Your task to perform on an android device: Open CNN.com Image 0: 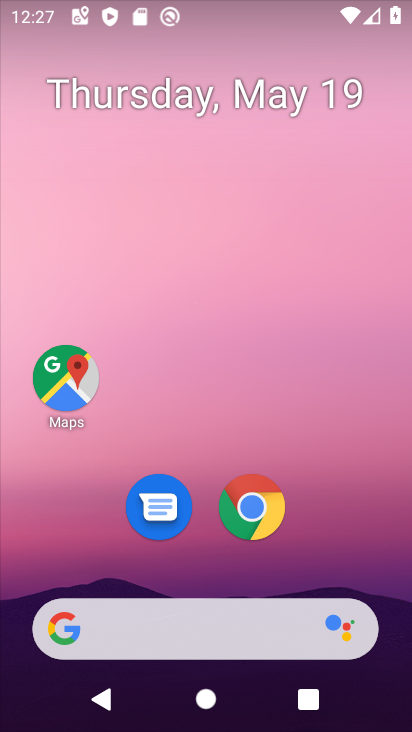
Step 0: click (256, 515)
Your task to perform on an android device: Open CNN.com Image 1: 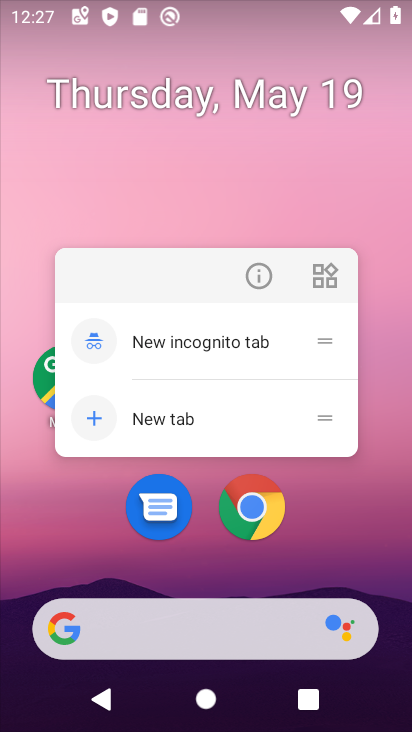
Step 1: click (262, 513)
Your task to perform on an android device: Open CNN.com Image 2: 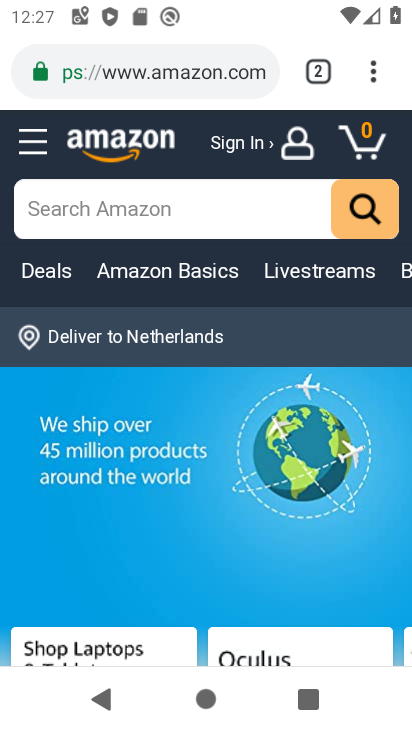
Step 2: click (212, 81)
Your task to perform on an android device: Open CNN.com Image 3: 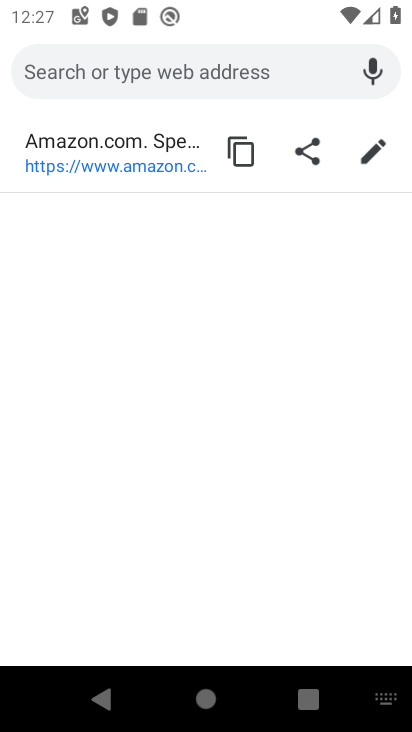
Step 3: type "CNN.com"
Your task to perform on an android device: Open CNN.com Image 4: 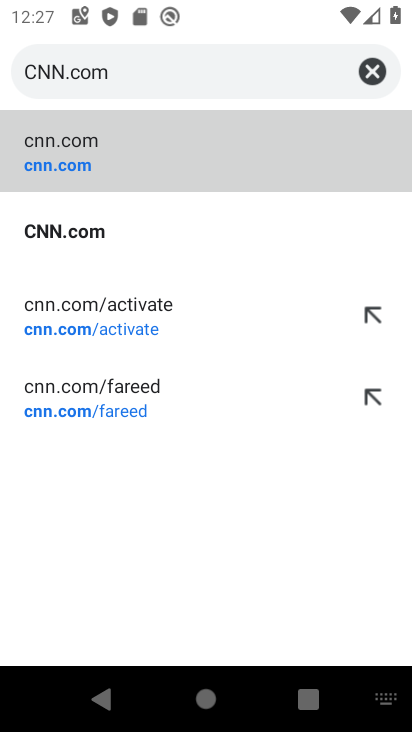
Step 4: click (86, 234)
Your task to perform on an android device: Open CNN.com Image 5: 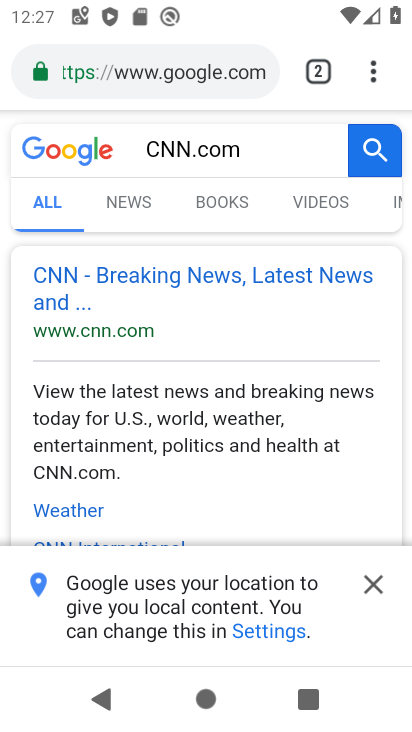
Step 5: click (368, 589)
Your task to perform on an android device: Open CNN.com Image 6: 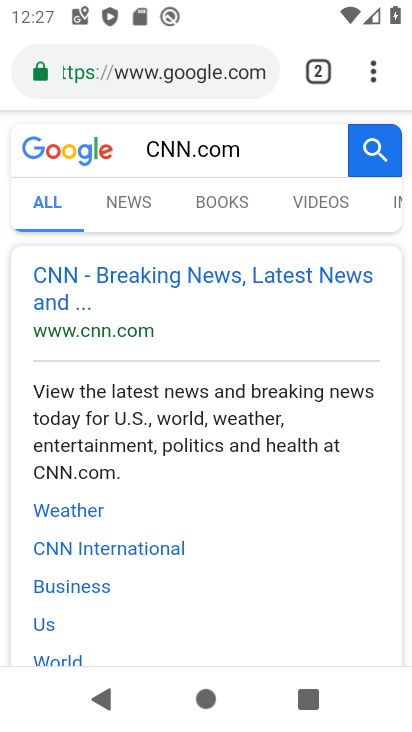
Step 6: task complete